Your task to perform on an android device: open a bookmark in the chrome app Image 0: 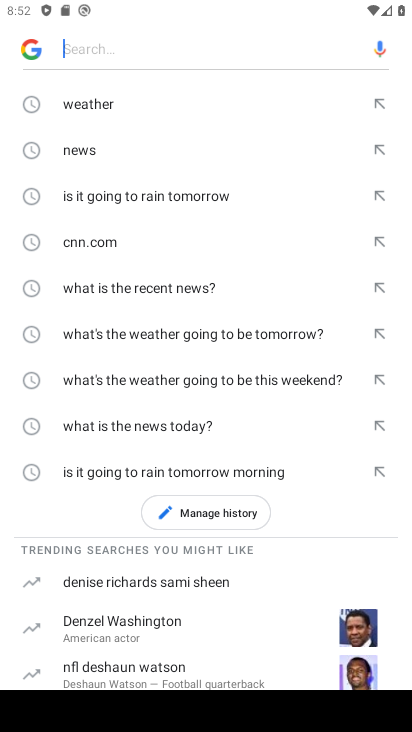
Step 0: press home button
Your task to perform on an android device: open a bookmark in the chrome app Image 1: 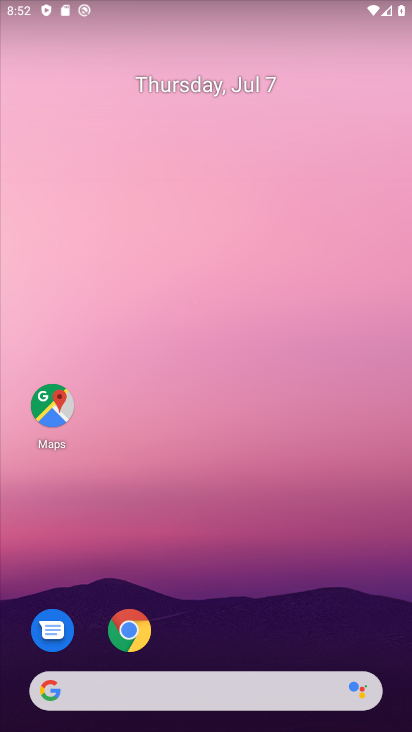
Step 1: click (131, 627)
Your task to perform on an android device: open a bookmark in the chrome app Image 2: 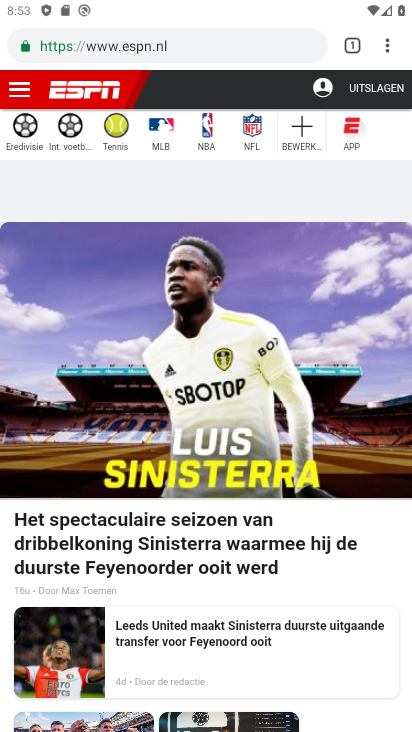
Step 2: click (393, 48)
Your task to perform on an android device: open a bookmark in the chrome app Image 3: 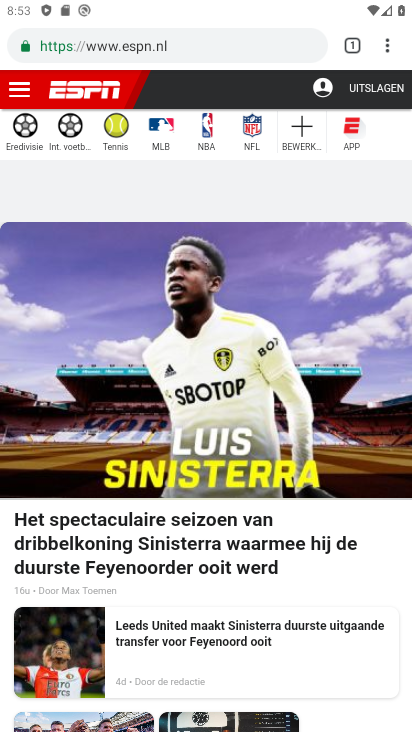
Step 3: click (380, 45)
Your task to perform on an android device: open a bookmark in the chrome app Image 4: 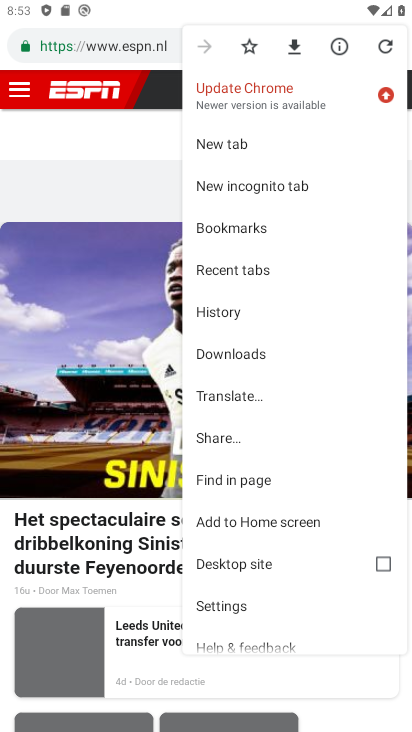
Step 4: click (280, 218)
Your task to perform on an android device: open a bookmark in the chrome app Image 5: 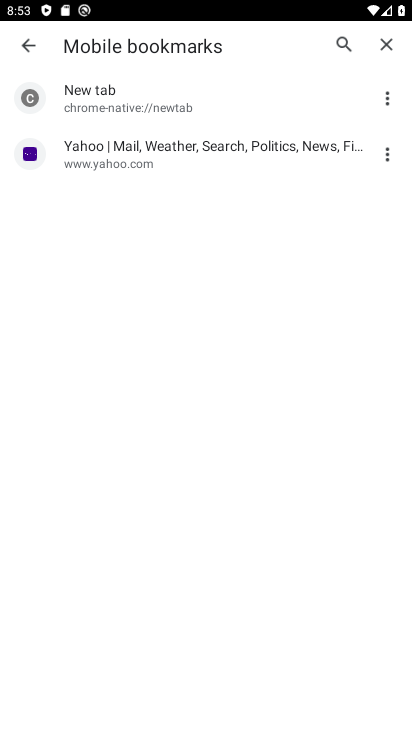
Step 5: click (86, 144)
Your task to perform on an android device: open a bookmark in the chrome app Image 6: 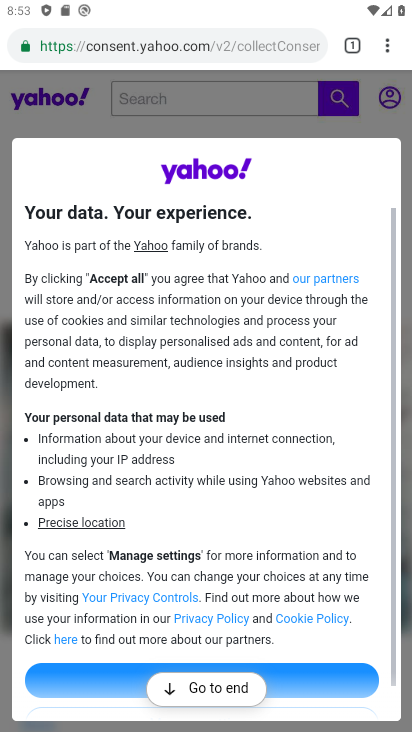
Step 6: task complete